Your task to perform on an android device: change keyboard looks Image 0: 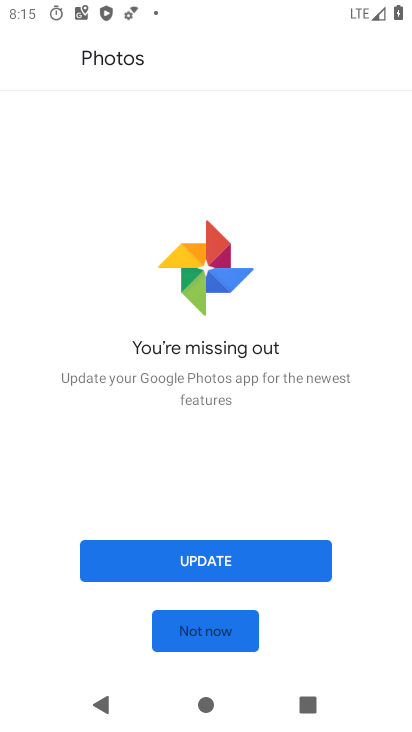
Step 0: press home button
Your task to perform on an android device: change keyboard looks Image 1: 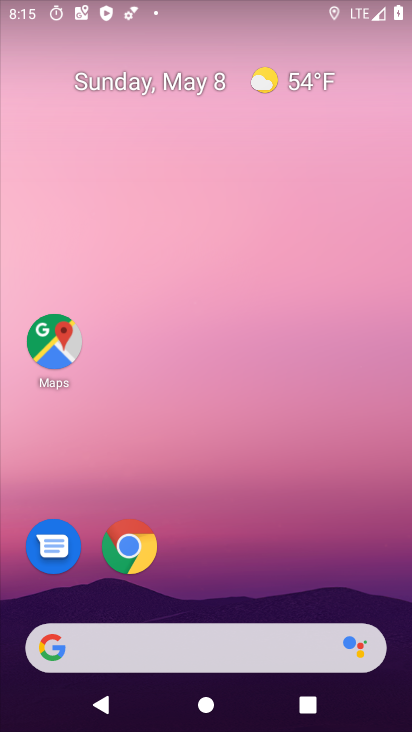
Step 1: drag from (389, 615) to (353, 182)
Your task to perform on an android device: change keyboard looks Image 2: 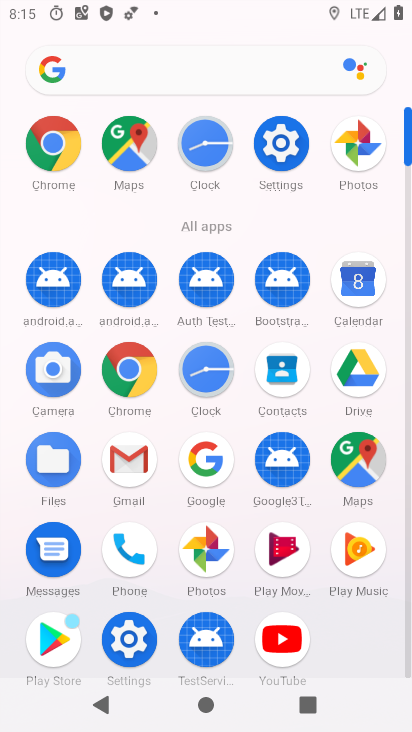
Step 2: click (122, 630)
Your task to perform on an android device: change keyboard looks Image 3: 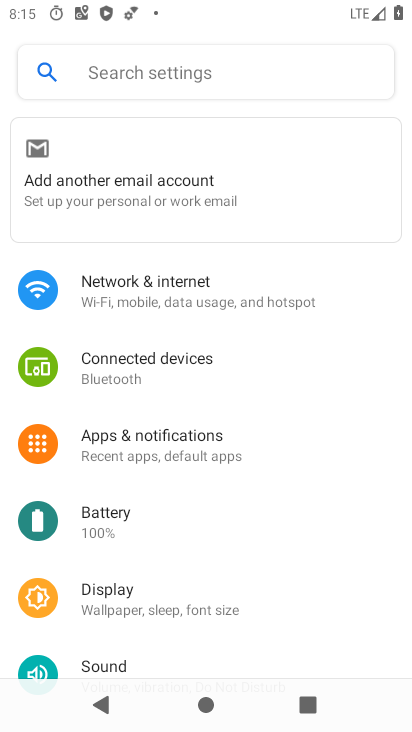
Step 3: drag from (335, 627) to (310, 283)
Your task to perform on an android device: change keyboard looks Image 4: 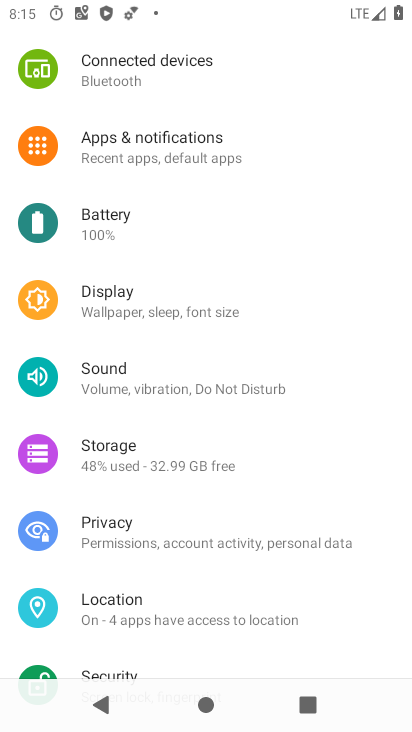
Step 4: drag from (340, 504) to (321, 314)
Your task to perform on an android device: change keyboard looks Image 5: 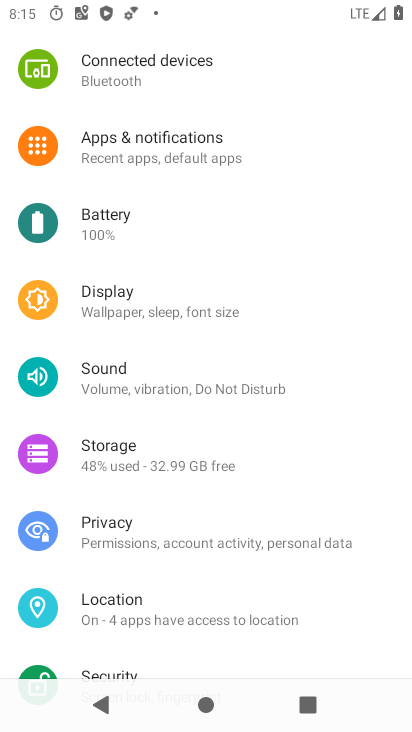
Step 5: drag from (384, 650) to (345, 228)
Your task to perform on an android device: change keyboard looks Image 6: 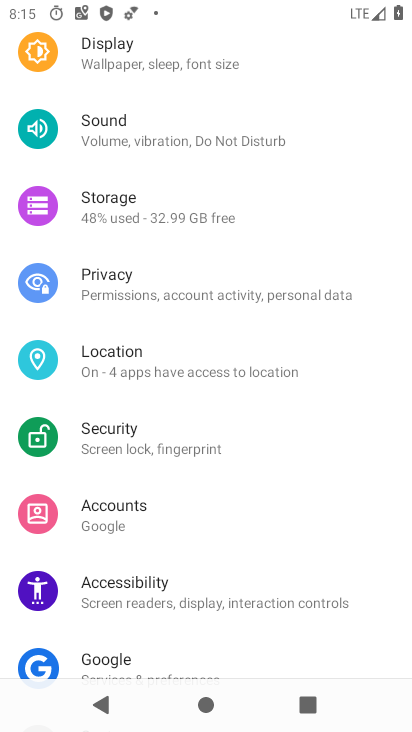
Step 6: drag from (385, 653) to (343, 319)
Your task to perform on an android device: change keyboard looks Image 7: 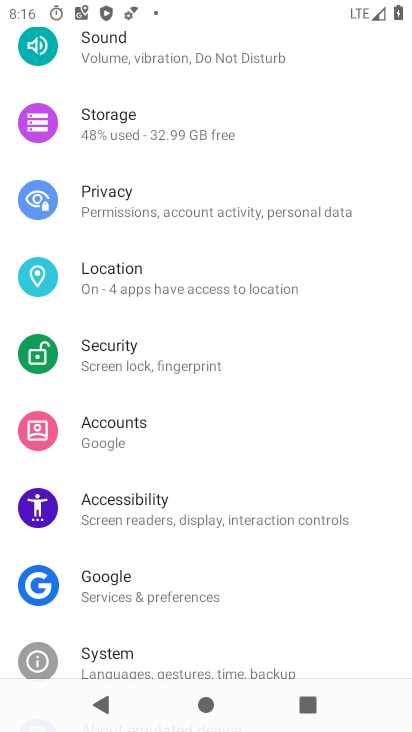
Step 7: click (103, 656)
Your task to perform on an android device: change keyboard looks Image 8: 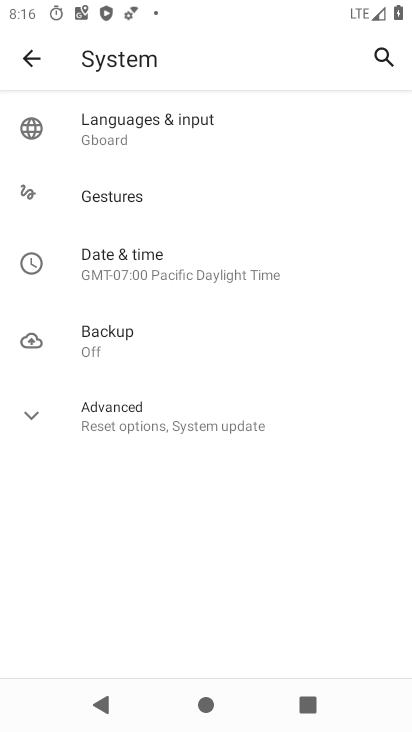
Step 8: click (119, 121)
Your task to perform on an android device: change keyboard looks Image 9: 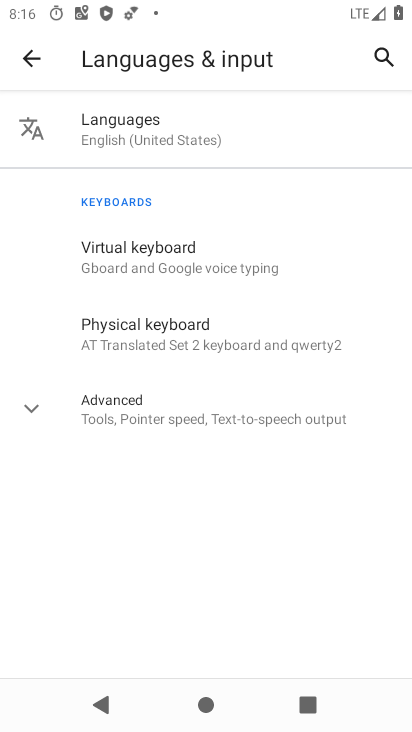
Step 9: click (124, 245)
Your task to perform on an android device: change keyboard looks Image 10: 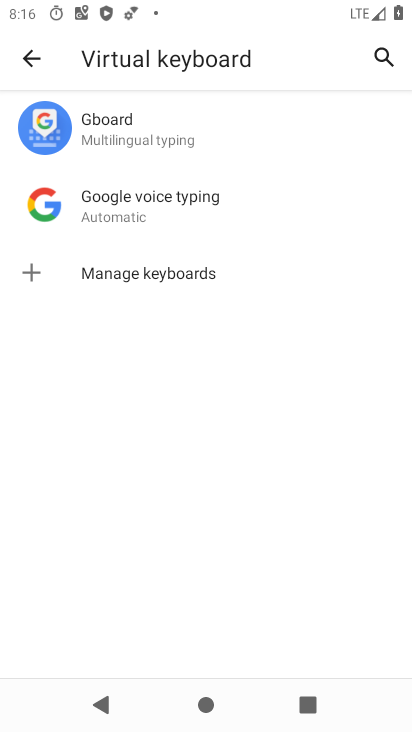
Step 10: click (98, 138)
Your task to perform on an android device: change keyboard looks Image 11: 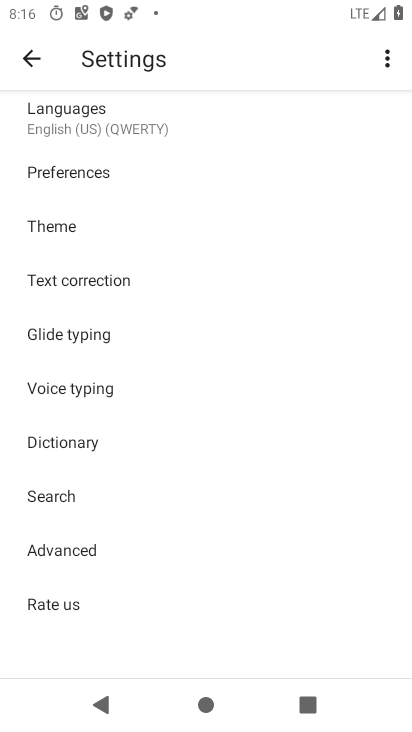
Step 11: click (61, 221)
Your task to perform on an android device: change keyboard looks Image 12: 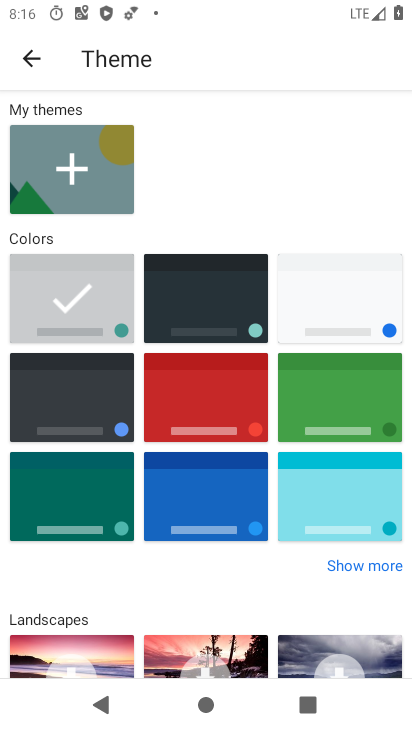
Step 12: click (202, 401)
Your task to perform on an android device: change keyboard looks Image 13: 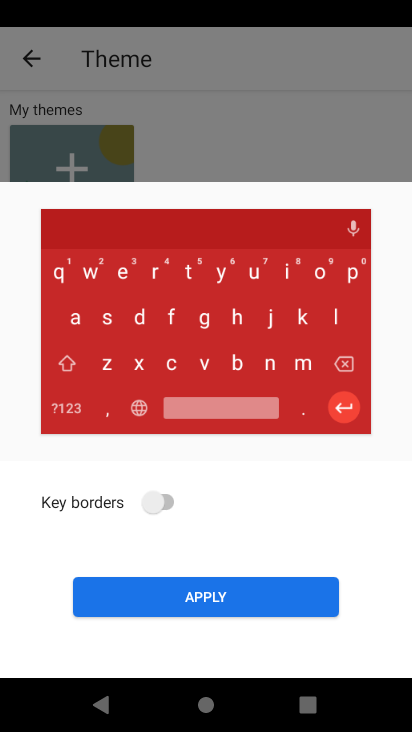
Step 13: click (155, 497)
Your task to perform on an android device: change keyboard looks Image 14: 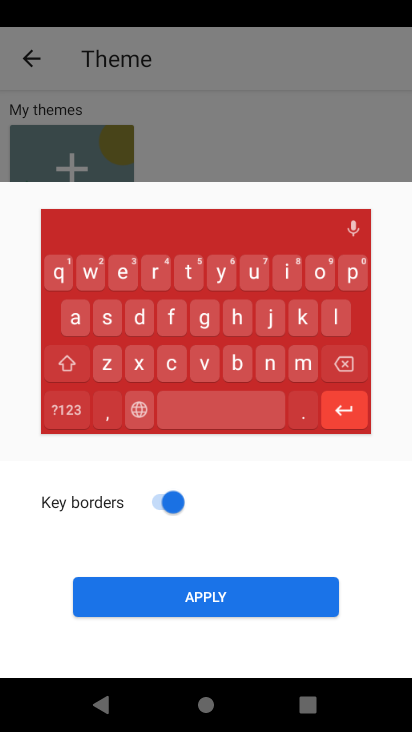
Step 14: click (185, 602)
Your task to perform on an android device: change keyboard looks Image 15: 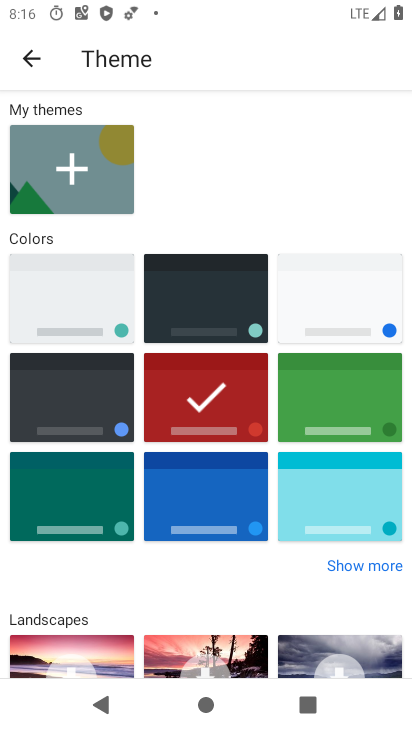
Step 15: task complete